Your task to perform on an android device: Show me the alarms in the clock app Image 0: 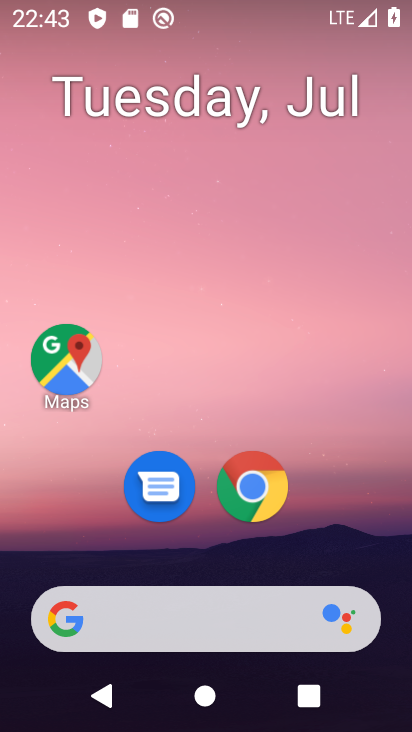
Step 0: press home button
Your task to perform on an android device: Show me the alarms in the clock app Image 1: 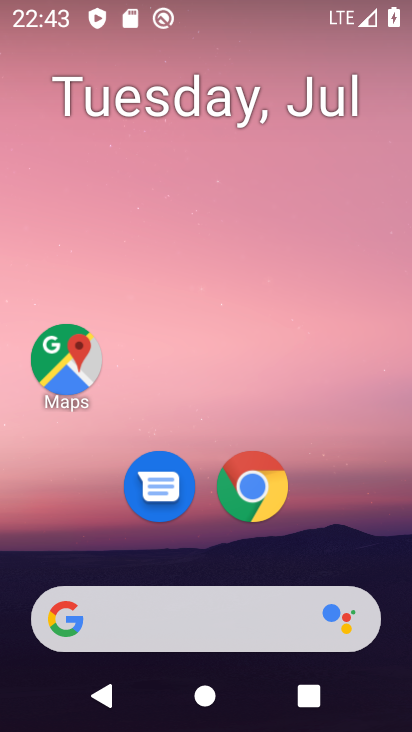
Step 1: drag from (348, 536) to (355, 231)
Your task to perform on an android device: Show me the alarms in the clock app Image 2: 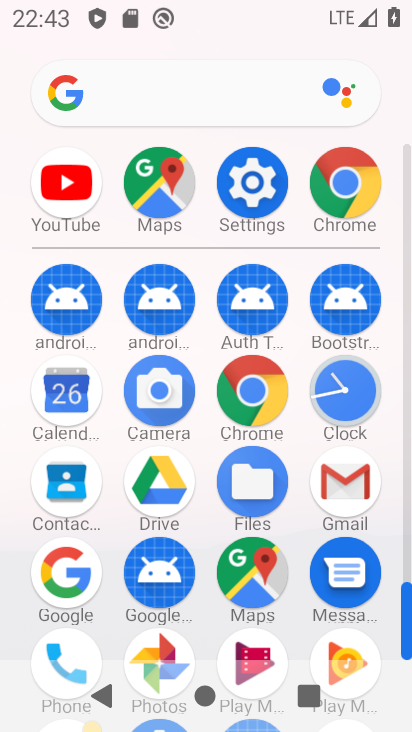
Step 2: click (338, 393)
Your task to perform on an android device: Show me the alarms in the clock app Image 3: 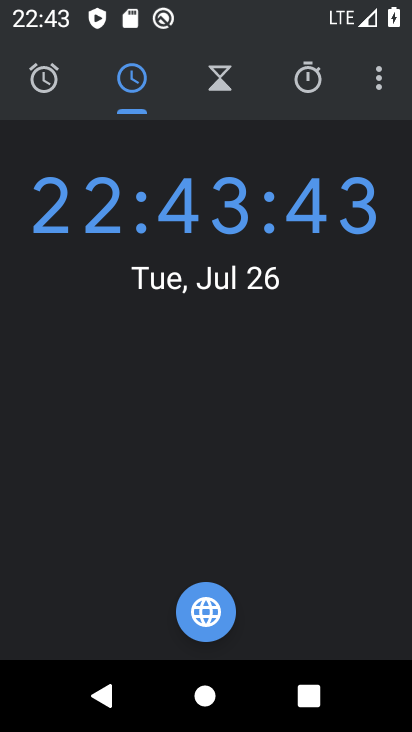
Step 3: click (49, 73)
Your task to perform on an android device: Show me the alarms in the clock app Image 4: 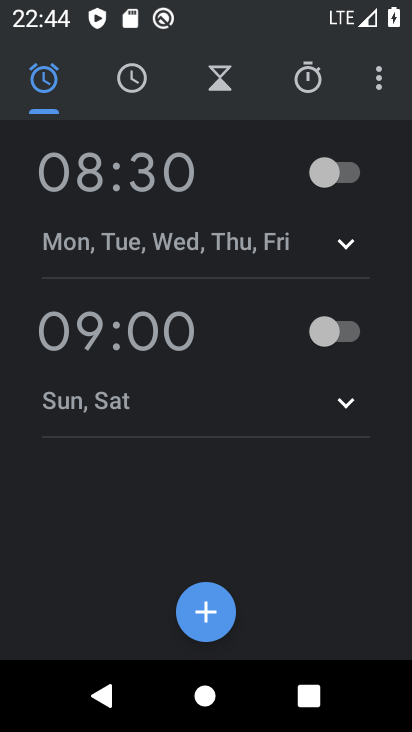
Step 4: task complete